Your task to perform on an android device: Open calendar and show me the first week of next month Image 0: 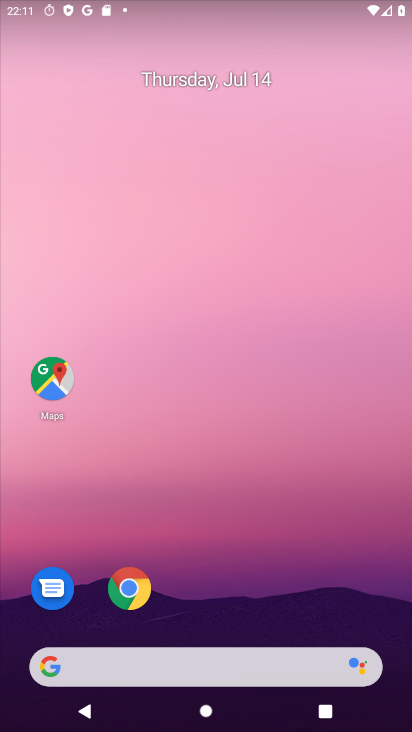
Step 0: drag from (252, 594) to (335, 102)
Your task to perform on an android device: Open calendar and show me the first week of next month Image 1: 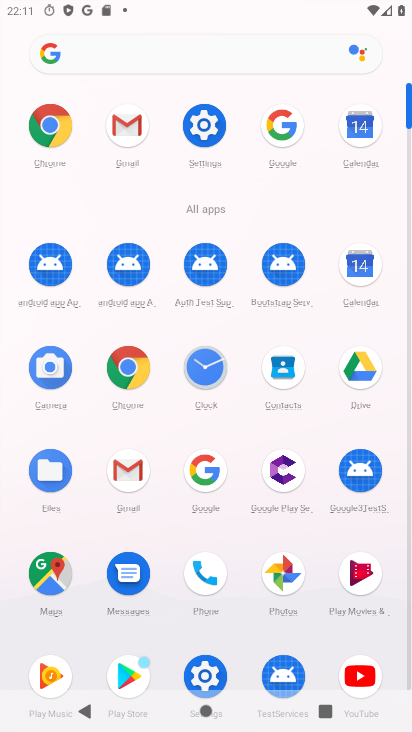
Step 1: click (367, 261)
Your task to perform on an android device: Open calendar and show me the first week of next month Image 2: 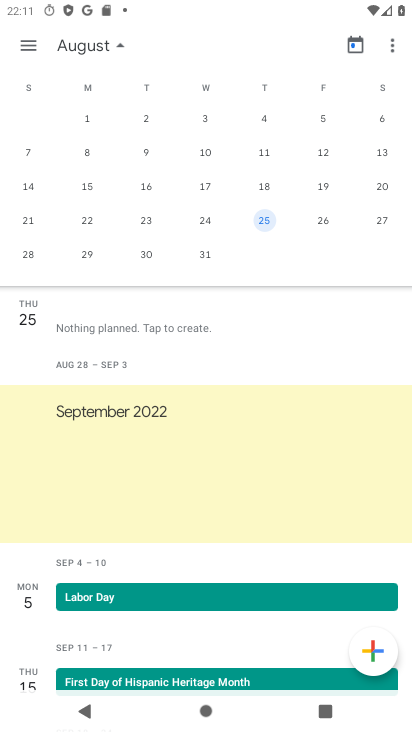
Step 2: click (261, 120)
Your task to perform on an android device: Open calendar and show me the first week of next month Image 3: 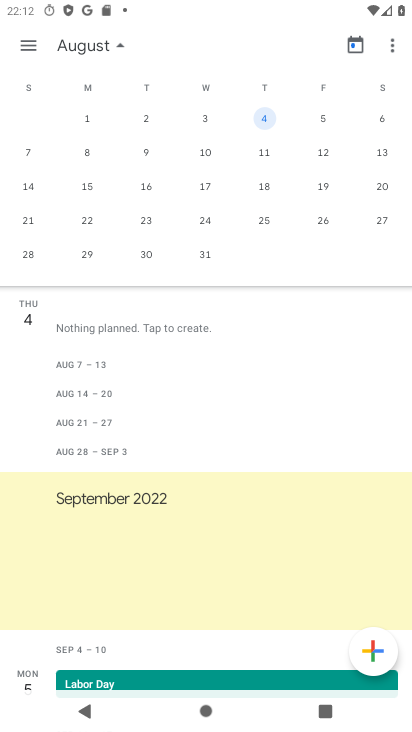
Step 3: task complete